Your task to perform on an android device: find which apps use the phone's location Image 0: 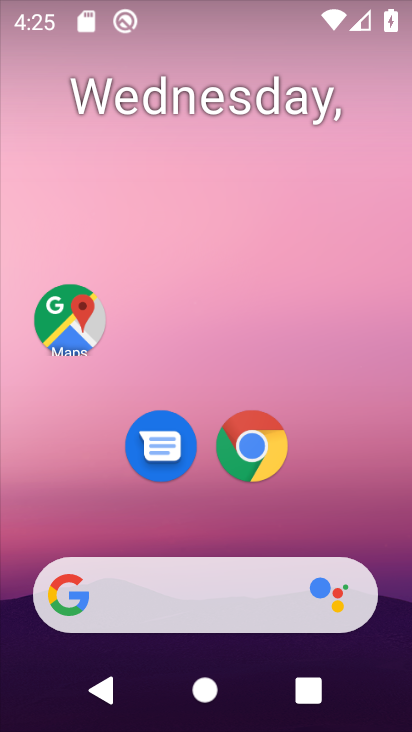
Step 0: drag from (101, 524) to (228, 81)
Your task to perform on an android device: find which apps use the phone's location Image 1: 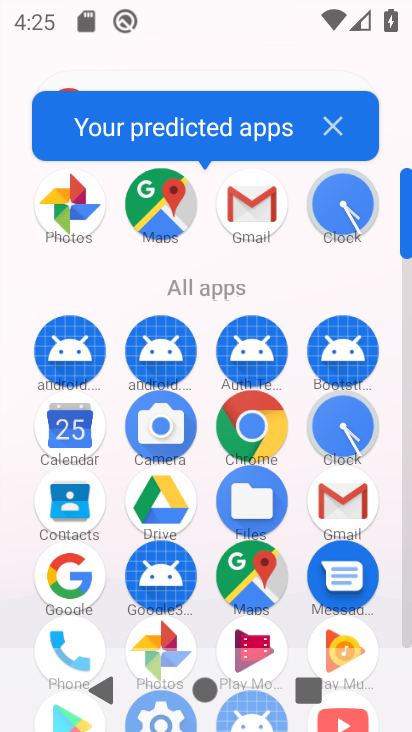
Step 1: drag from (173, 647) to (255, 385)
Your task to perform on an android device: find which apps use the phone's location Image 2: 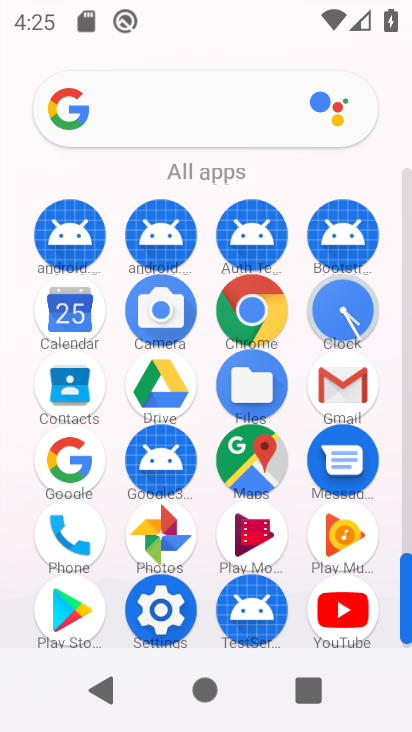
Step 2: click (154, 621)
Your task to perform on an android device: find which apps use the phone's location Image 3: 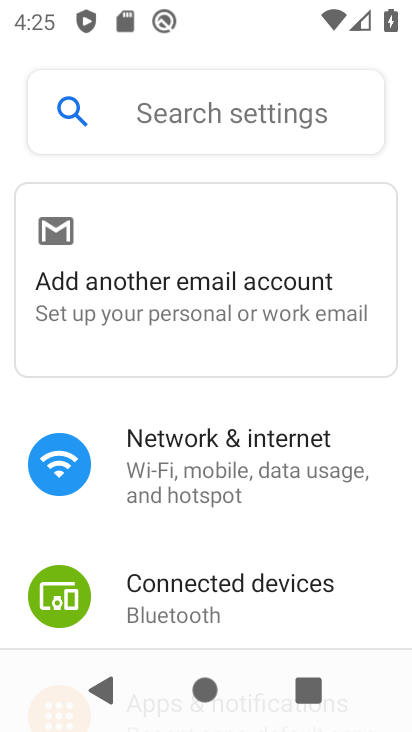
Step 3: drag from (248, 589) to (340, 258)
Your task to perform on an android device: find which apps use the phone's location Image 4: 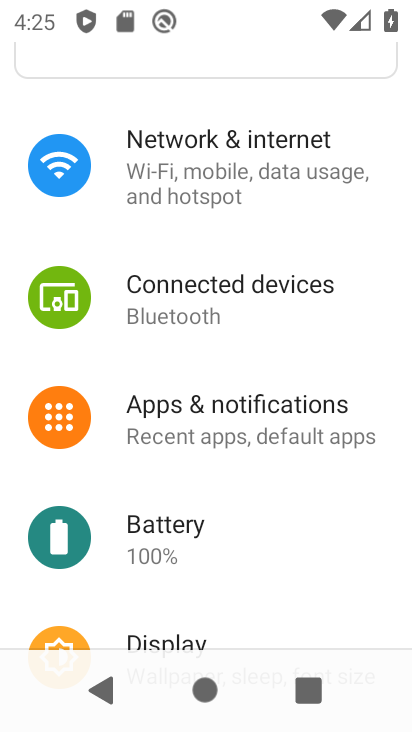
Step 4: drag from (258, 580) to (373, 183)
Your task to perform on an android device: find which apps use the phone's location Image 5: 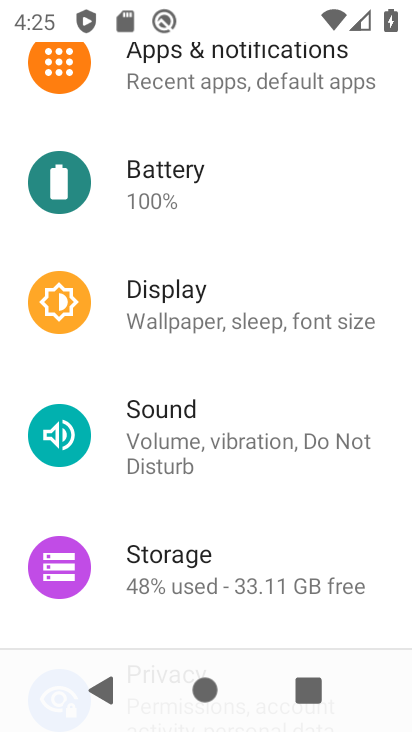
Step 5: drag from (248, 577) to (333, 224)
Your task to perform on an android device: find which apps use the phone's location Image 6: 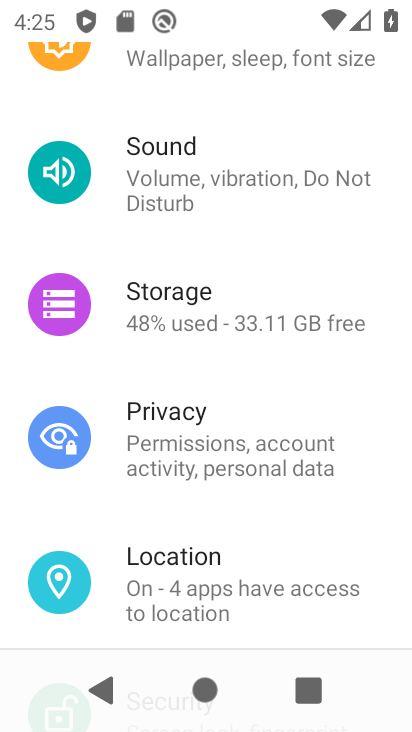
Step 6: click (227, 584)
Your task to perform on an android device: find which apps use the phone's location Image 7: 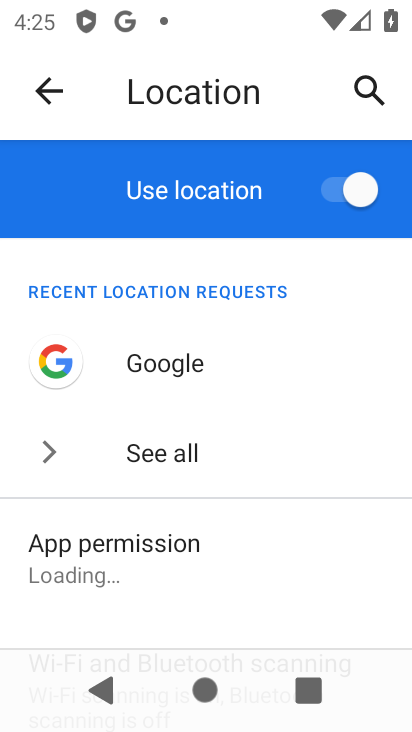
Step 7: click (216, 569)
Your task to perform on an android device: find which apps use the phone's location Image 8: 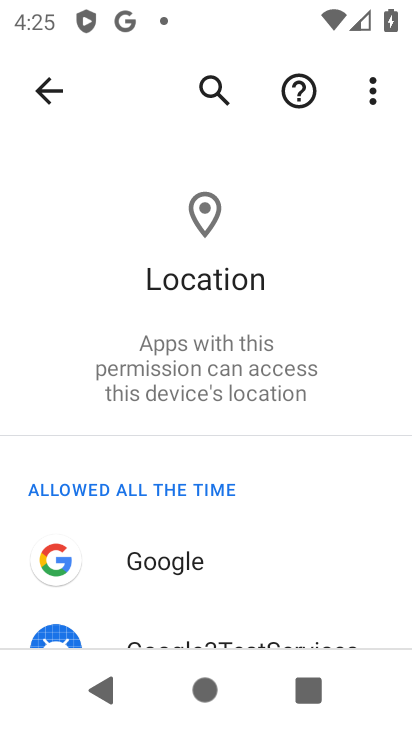
Step 8: task complete